Your task to perform on an android device: Open eBay Image 0: 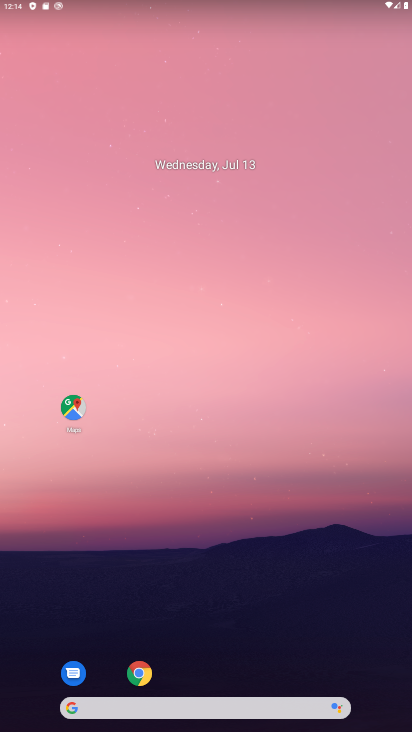
Step 0: drag from (263, 643) to (273, 39)
Your task to perform on an android device: Open eBay Image 1: 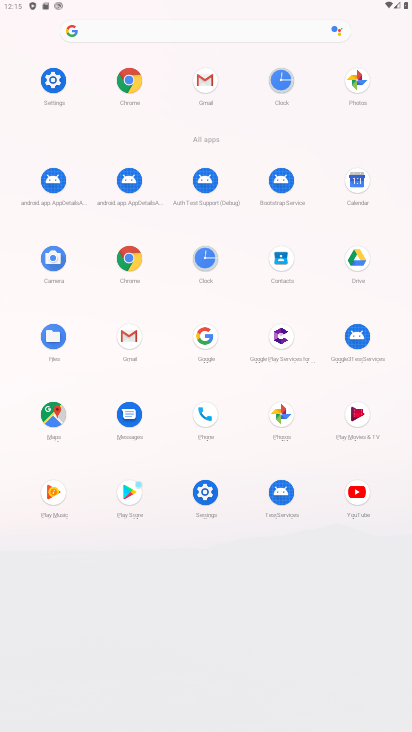
Step 1: click (115, 81)
Your task to perform on an android device: Open eBay Image 2: 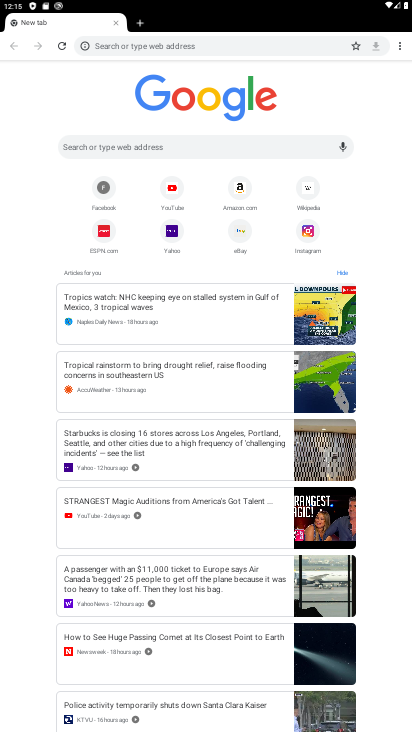
Step 2: click (240, 226)
Your task to perform on an android device: Open eBay Image 3: 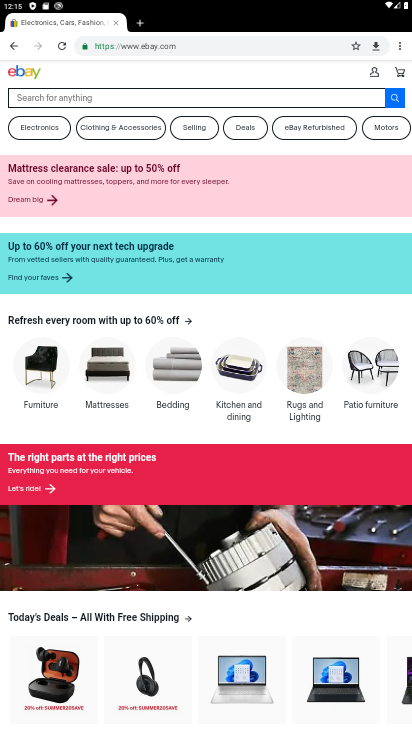
Step 3: task complete